Your task to perform on an android device: turn on improve location accuracy Image 0: 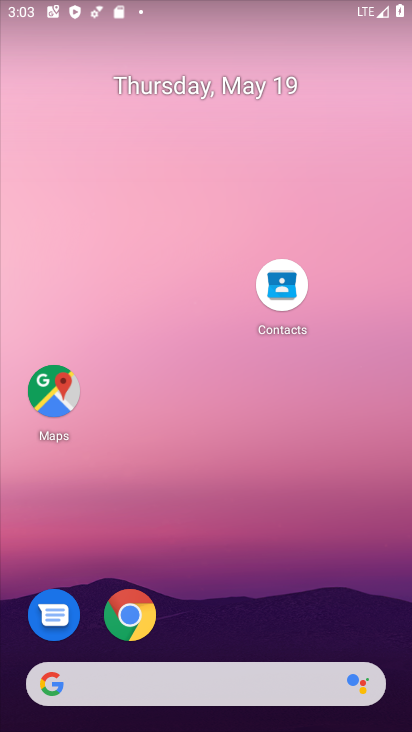
Step 0: drag from (264, 635) to (273, 69)
Your task to perform on an android device: turn on improve location accuracy Image 1: 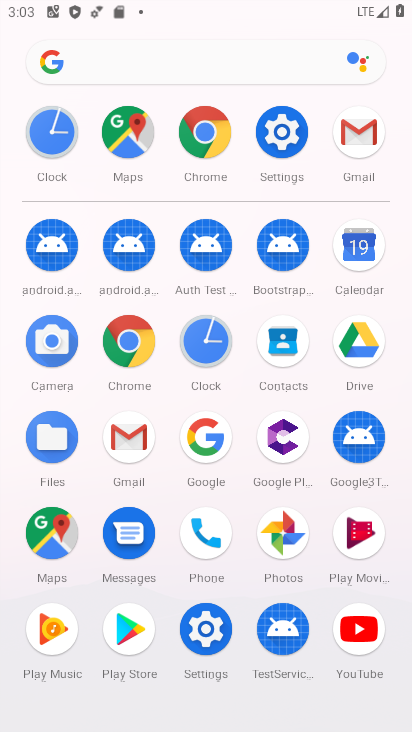
Step 1: click (273, 153)
Your task to perform on an android device: turn on improve location accuracy Image 2: 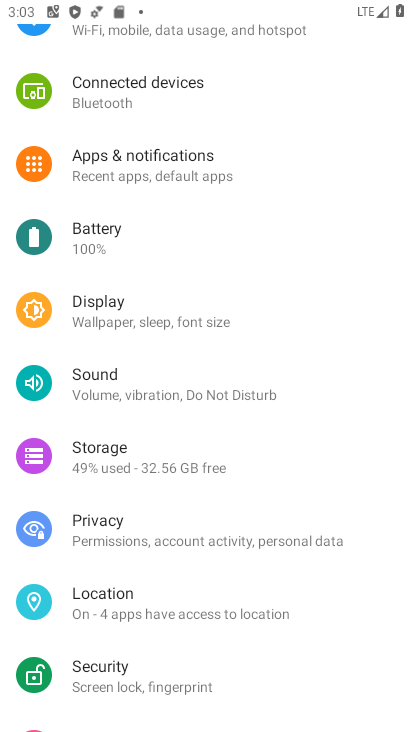
Step 2: click (256, 610)
Your task to perform on an android device: turn on improve location accuracy Image 3: 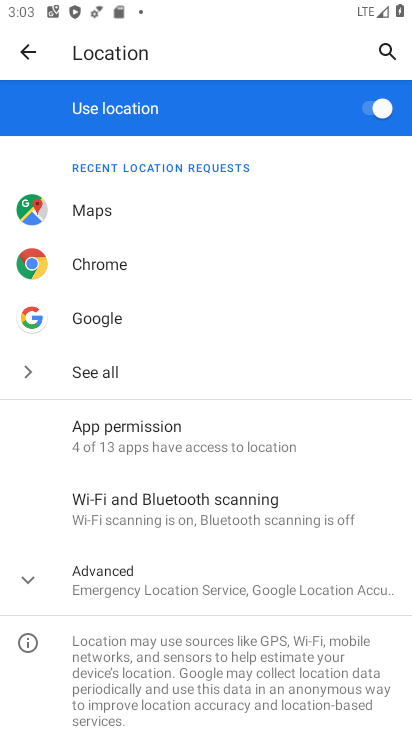
Step 3: click (262, 588)
Your task to perform on an android device: turn on improve location accuracy Image 4: 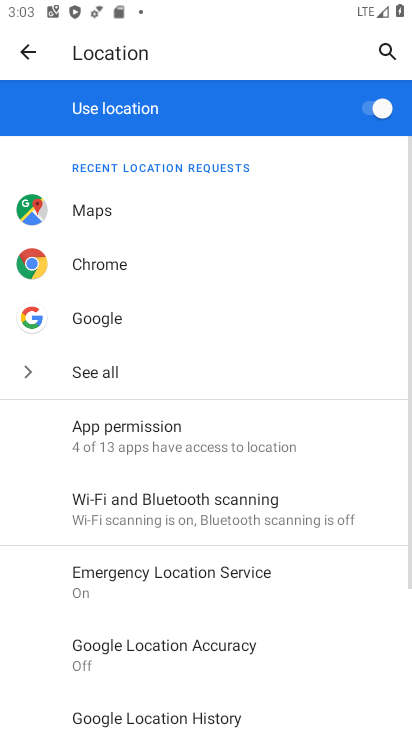
Step 4: drag from (219, 422) to (234, 184)
Your task to perform on an android device: turn on improve location accuracy Image 5: 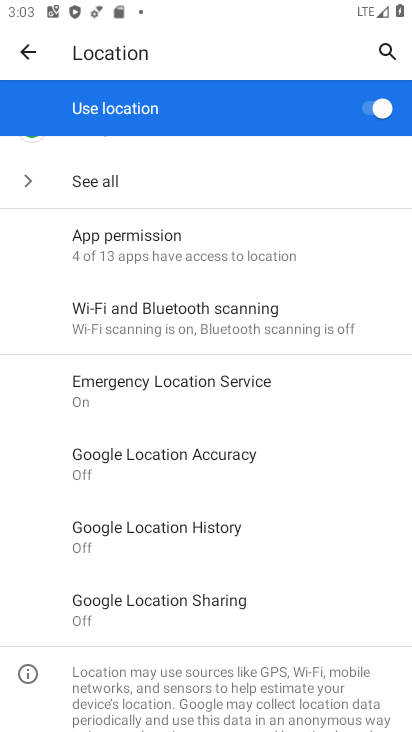
Step 5: click (236, 458)
Your task to perform on an android device: turn on improve location accuracy Image 6: 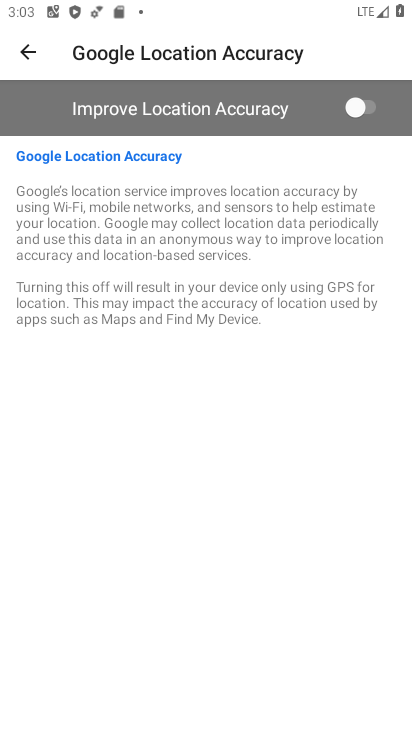
Step 6: click (378, 105)
Your task to perform on an android device: turn on improve location accuracy Image 7: 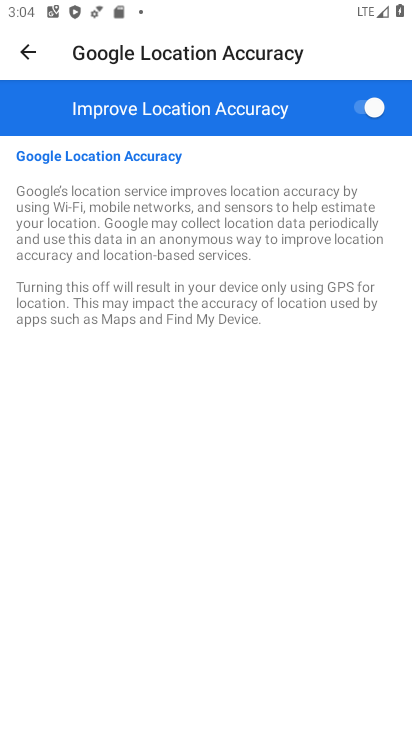
Step 7: task complete